Your task to perform on an android device: Open calendar and show me the second week of next month Image 0: 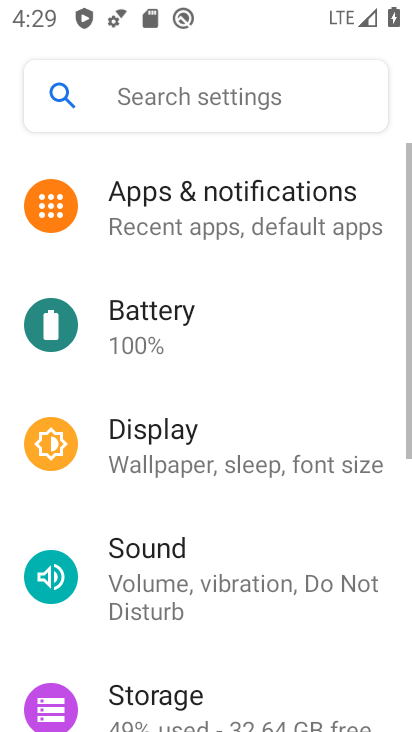
Step 0: drag from (178, 594) to (316, 67)
Your task to perform on an android device: Open calendar and show me the second week of next month Image 1: 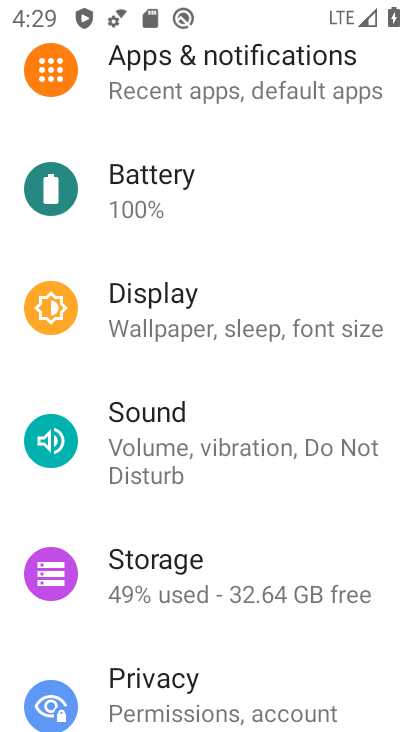
Step 1: press back button
Your task to perform on an android device: Open calendar and show me the second week of next month Image 2: 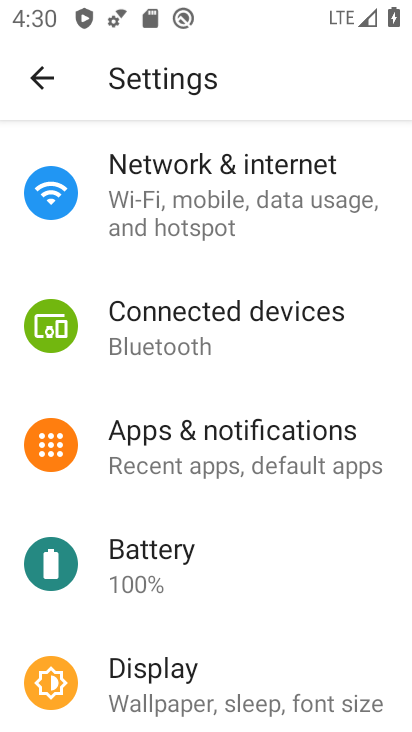
Step 2: press back button
Your task to perform on an android device: Open calendar and show me the second week of next month Image 3: 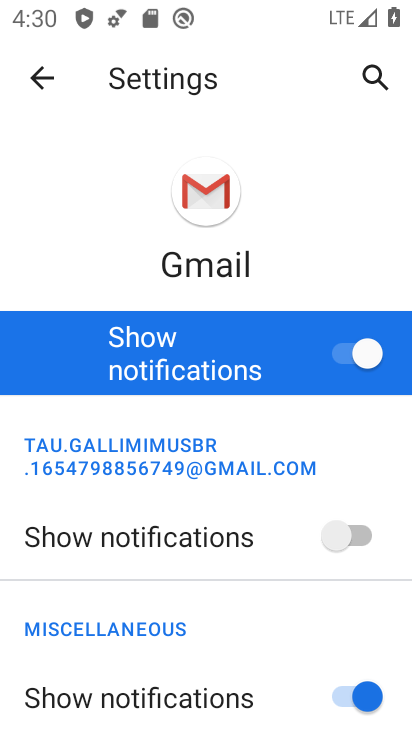
Step 3: press back button
Your task to perform on an android device: Open calendar and show me the second week of next month Image 4: 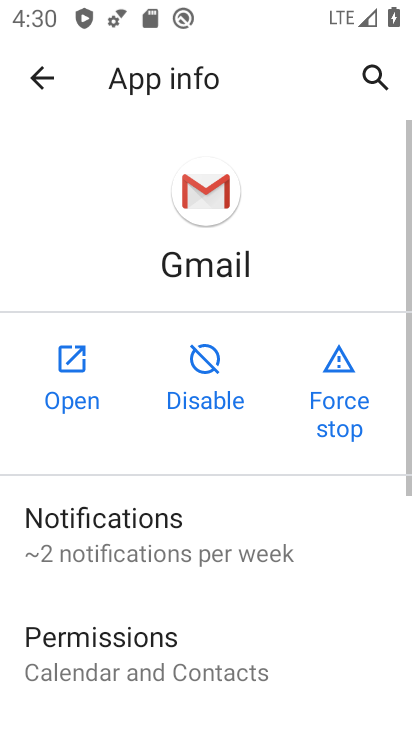
Step 4: press back button
Your task to perform on an android device: Open calendar and show me the second week of next month Image 5: 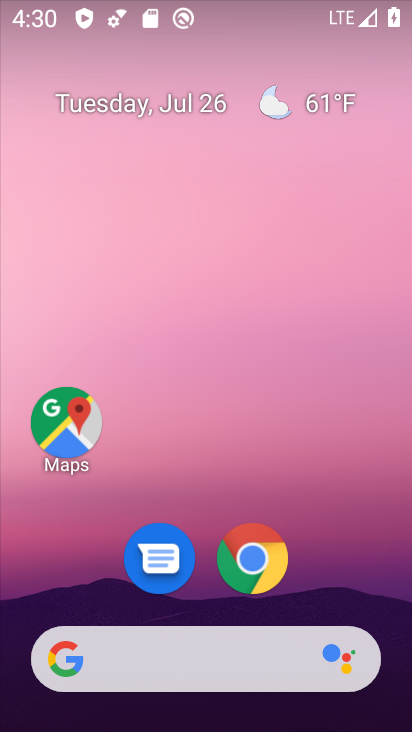
Step 5: drag from (213, 608) to (367, 9)
Your task to perform on an android device: Open calendar and show me the second week of next month Image 6: 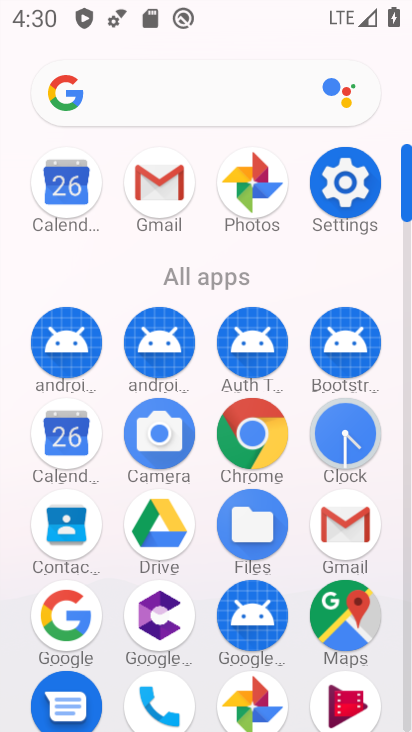
Step 6: click (63, 445)
Your task to perform on an android device: Open calendar and show me the second week of next month Image 7: 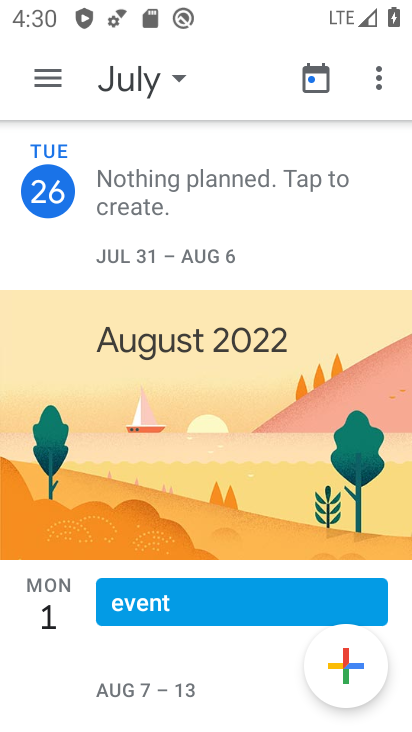
Step 7: click (160, 78)
Your task to perform on an android device: Open calendar and show me the second week of next month Image 8: 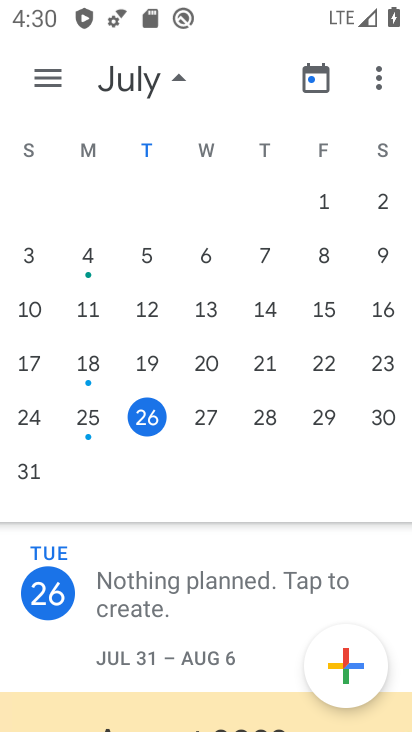
Step 8: drag from (391, 305) to (24, 328)
Your task to perform on an android device: Open calendar and show me the second week of next month Image 9: 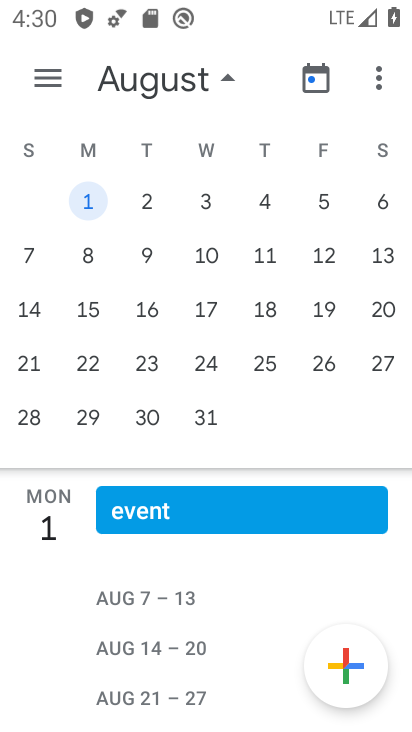
Step 9: click (78, 246)
Your task to perform on an android device: Open calendar and show me the second week of next month Image 10: 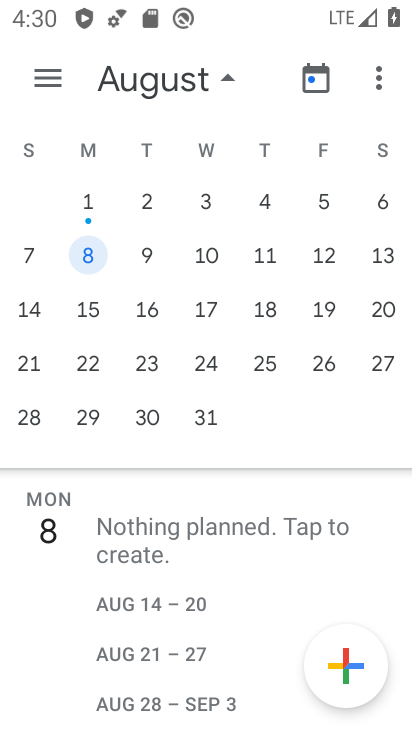
Step 10: task complete